Your task to perform on an android device: Open battery settings Image 0: 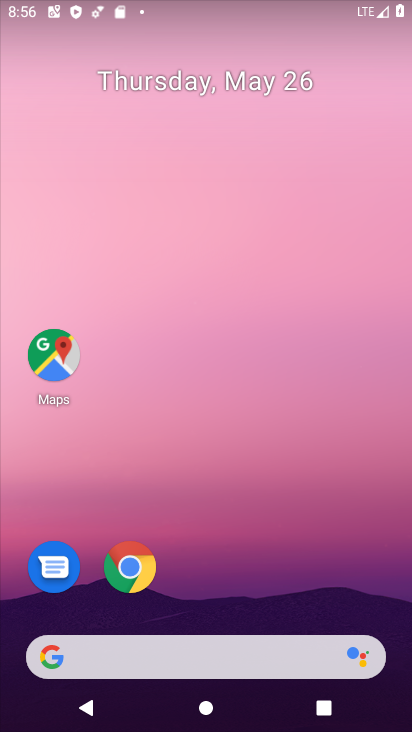
Step 0: drag from (267, 718) to (321, 64)
Your task to perform on an android device: Open battery settings Image 1: 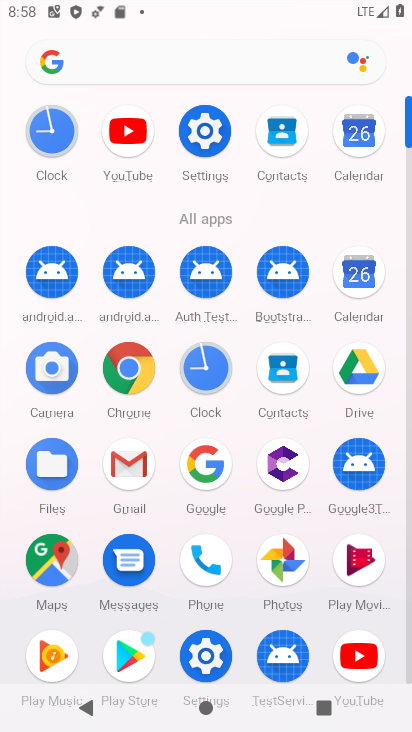
Step 1: click (216, 130)
Your task to perform on an android device: Open battery settings Image 2: 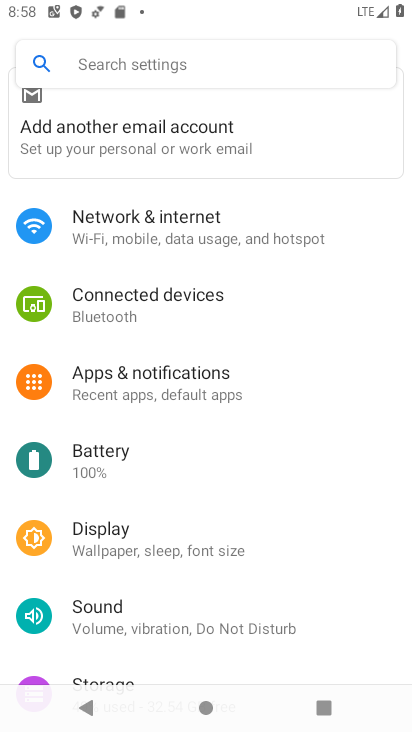
Step 2: click (168, 453)
Your task to perform on an android device: Open battery settings Image 3: 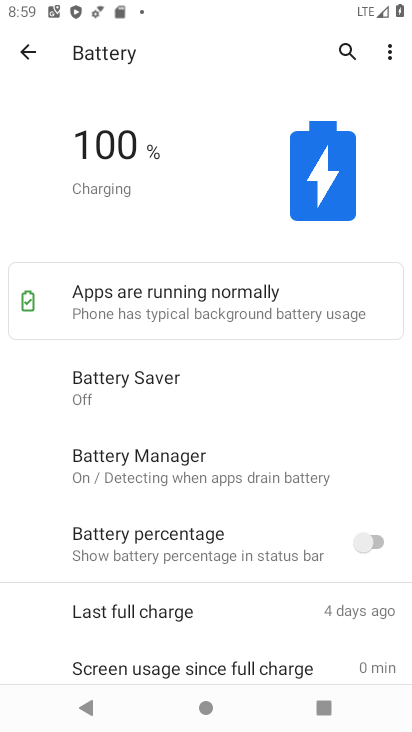
Step 3: task complete